Your task to perform on an android device: Go to internet settings Image 0: 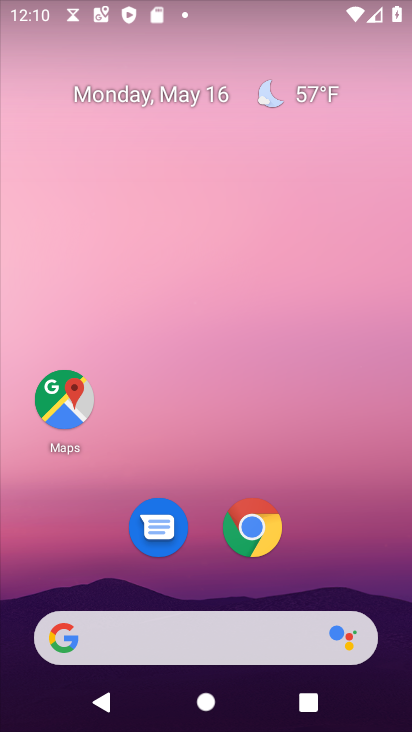
Step 0: drag from (205, 596) to (333, 28)
Your task to perform on an android device: Go to internet settings Image 1: 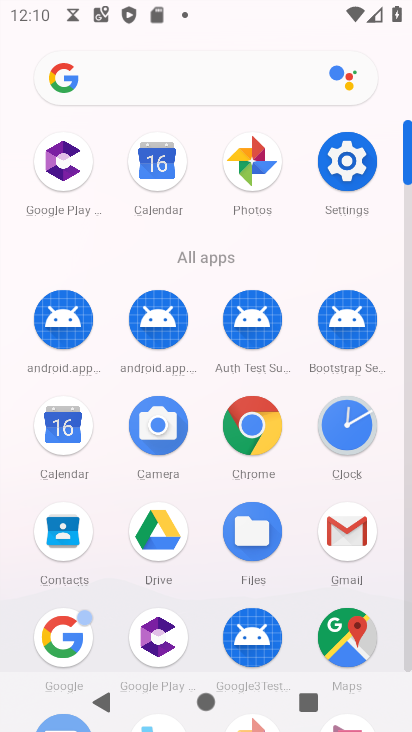
Step 1: click (339, 173)
Your task to perform on an android device: Go to internet settings Image 2: 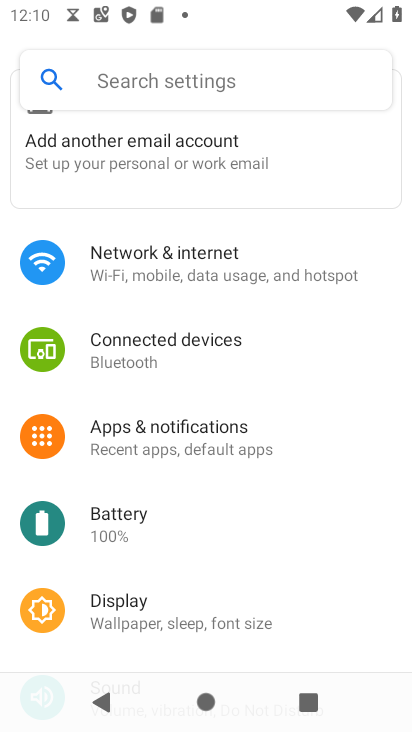
Step 2: click (221, 279)
Your task to perform on an android device: Go to internet settings Image 3: 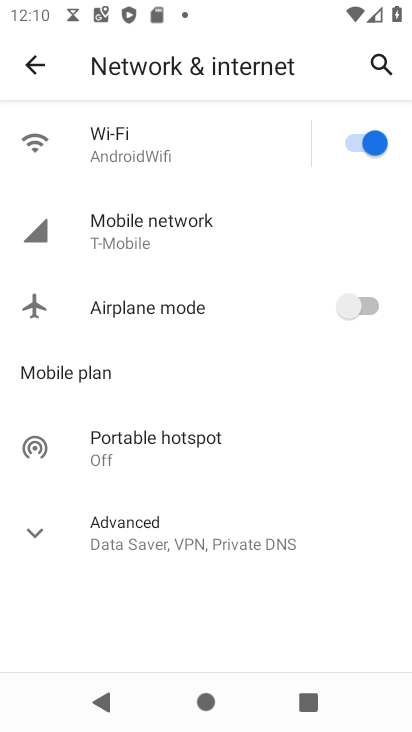
Step 3: task complete